Your task to perform on an android device: change the clock display to show seconds Image 0: 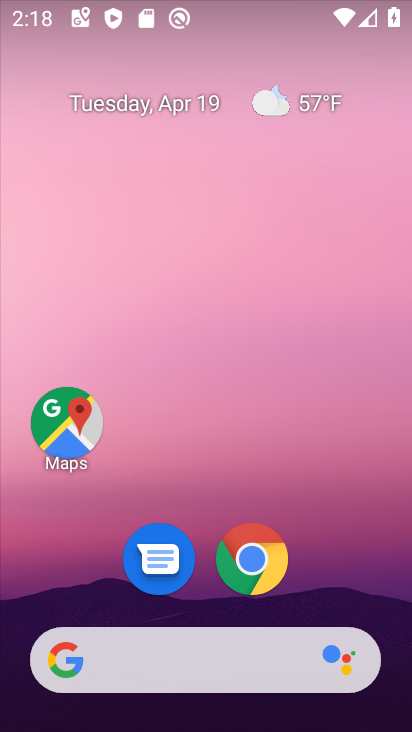
Step 0: drag from (209, 596) to (200, 122)
Your task to perform on an android device: change the clock display to show seconds Image 1: 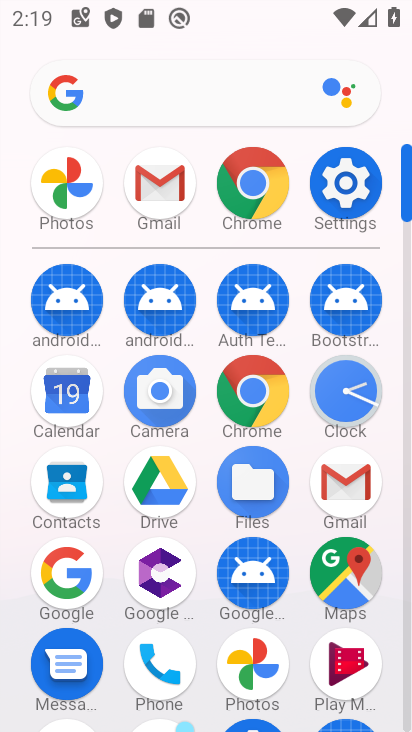
Step 1: click (350, 385)
Your task to perform on an android device: change the clock display to show seconds Image 2: 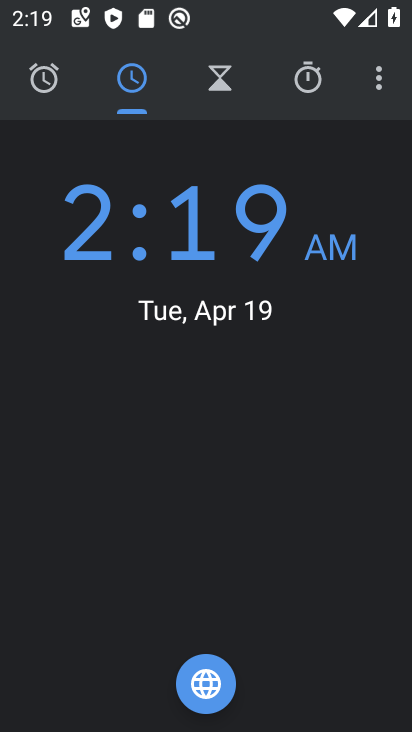
Step 2: click (376, 73)
Your task to perform on an android device: change the clock display to show seconds Image 3: 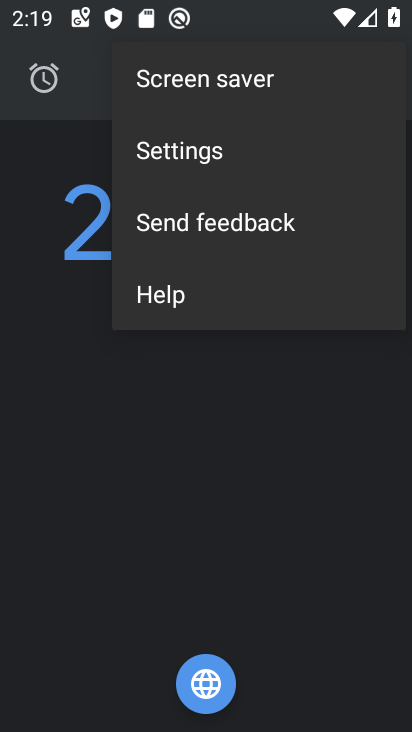
Step 3: click (219, 148)
Your task to perform on an android device: change the clock display to show seconds Image 4: 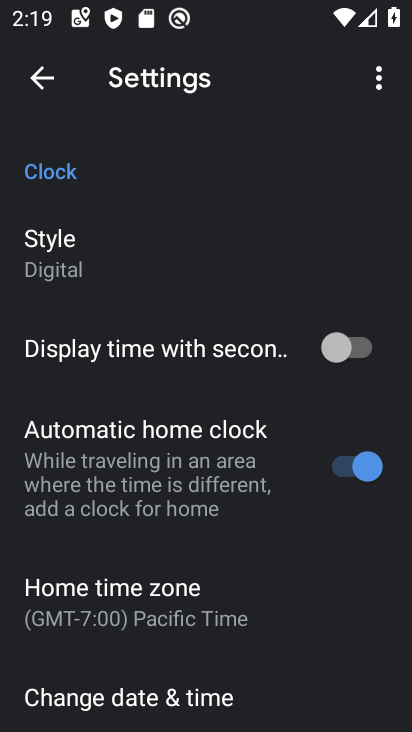
Step 4: click (356, 348)
Your task to perform on an android device: change the clock display to show seconds Image 5: 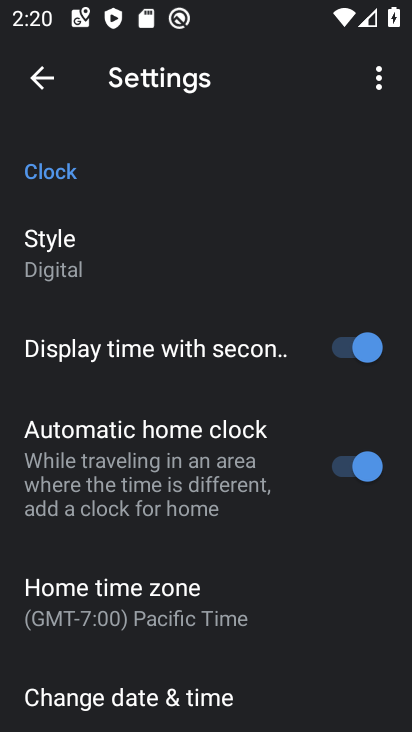
Step 5: task complete